Your task to perform on an android device: choose inbox layout in the gmail app Image 0: 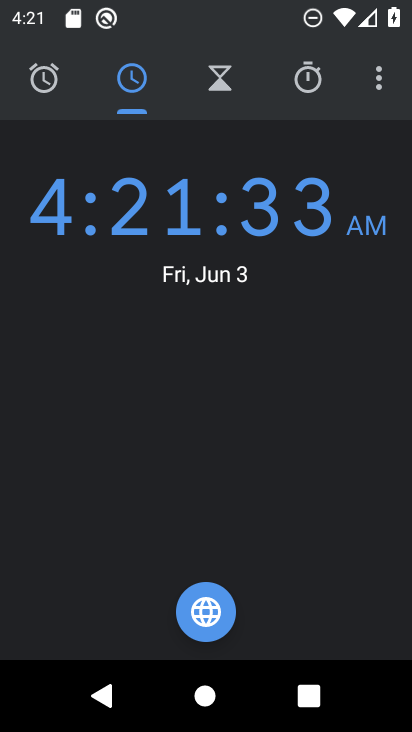
Step 0: press back button
Your task to perform on an android device: choose inbox layout in the gmail app Image 1: 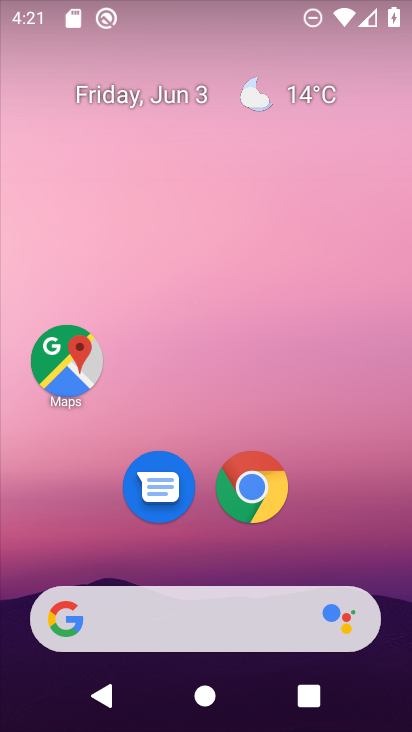
Step 1: drag from (241, 551) to (248, 24)
Your task to perform on an android device: choose inbox layout in the gmail app Image 2: 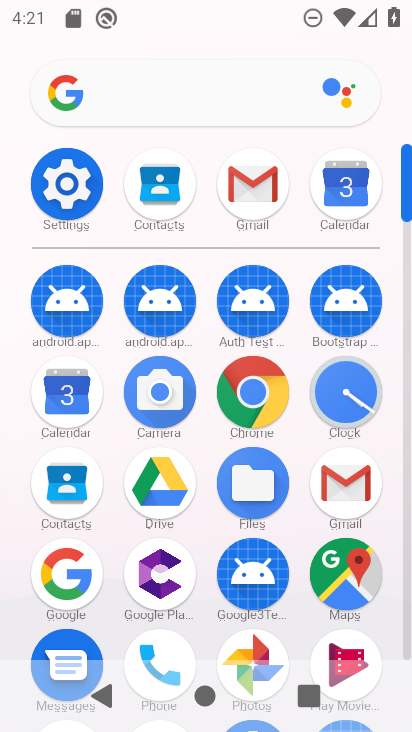
Step 2: click (264, 179)
Your task to perform on an android device: choose inbox layout in the gmail app Image 3: 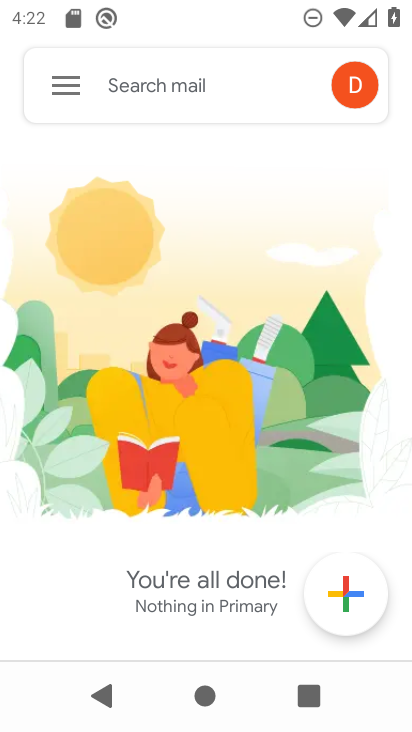
Step 3: click (54, 81)
Your task to perform on an android device: choose inbox layout in the gmail app Image 4: 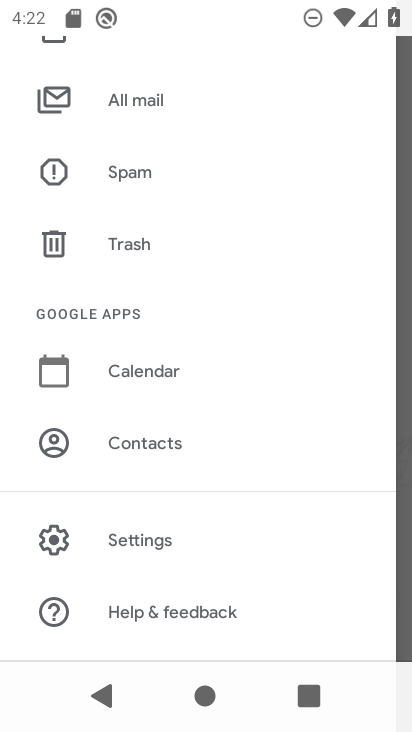
Step 4: click (122, 533)
Your task to perform on an android device: choose inbox layout in the gmail app Image 5: 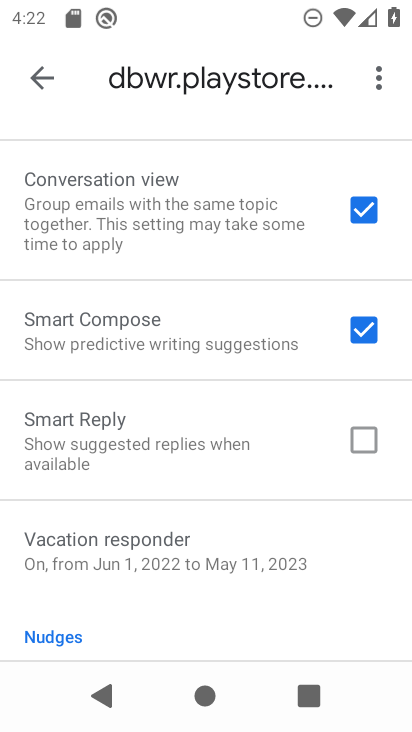
Step 5: drag from (174, 167) to (132, 731)
Your task to perform on an android device: choose inbox layout in the gmail app Image 6: 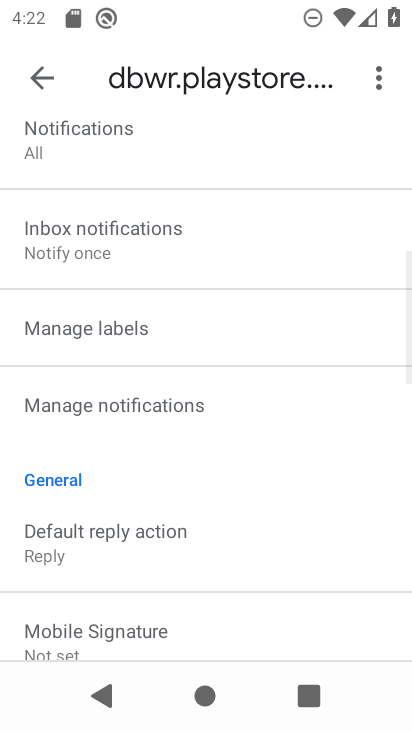
Step 6: drag from (163, 199) to (149, 630)
Your task to perform on an android device: choose inbox layout in the gmail app Image 7: 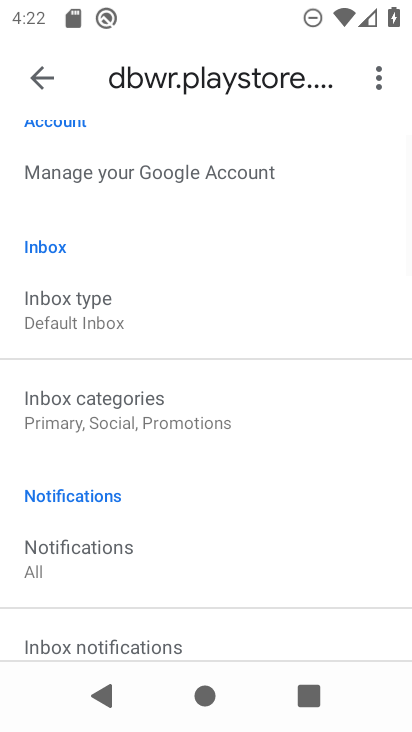
Step 7: click (106, 301)
Your task to perform on an android device: choose inbox layout in the gmail app Image 8: 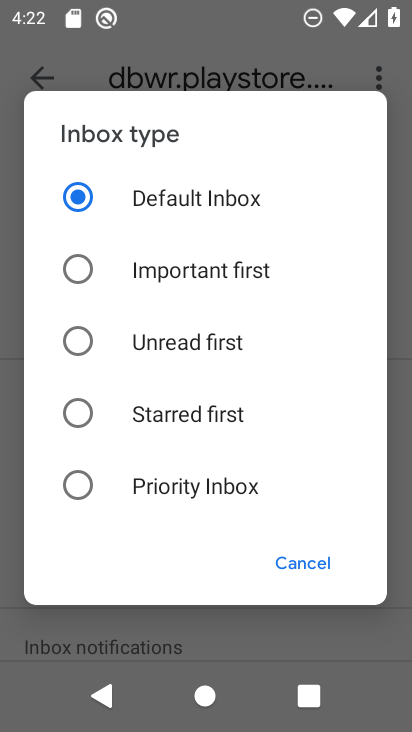
Step 8: click (75, 260)
Your task to perform on an android device: choose inbox layout in the gmail app Image 9: 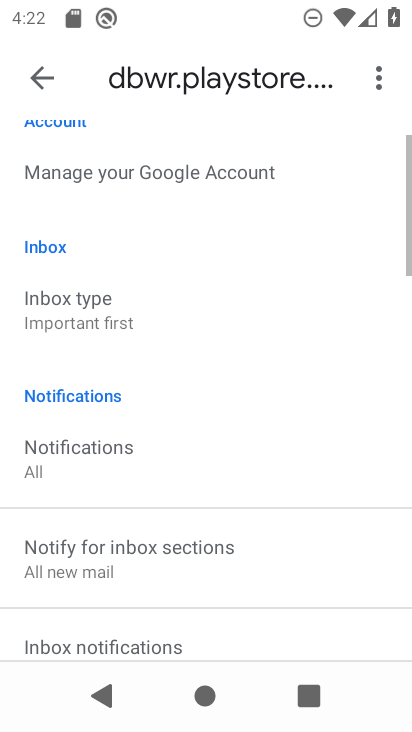
Step 9: task complete